Your task to perform on an android device: Open Chrome and go to settings Image 0: 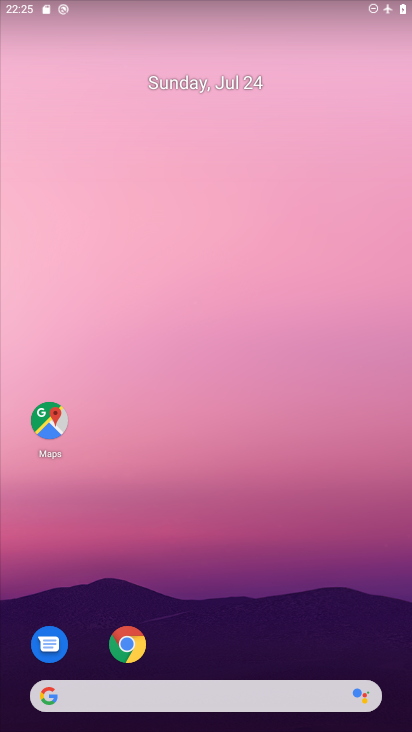
Step 0: click (128, 647)
Your task to perform on an android device: Open Chrome and go to settings Image 1: 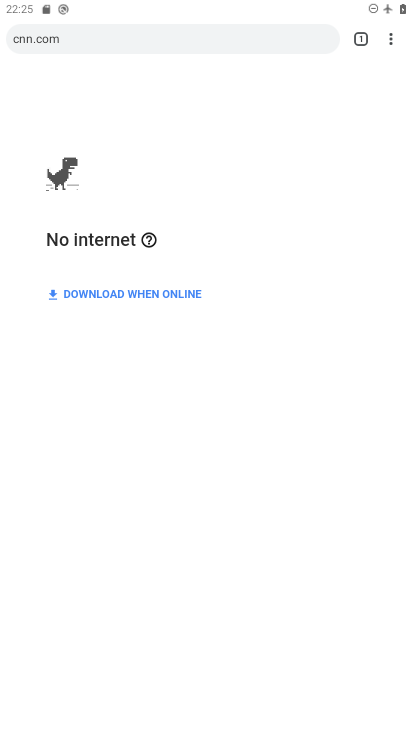
Step 1: click (392, 44)
Your task to perform on an android device: Open Chrome and go to settings Image 2: 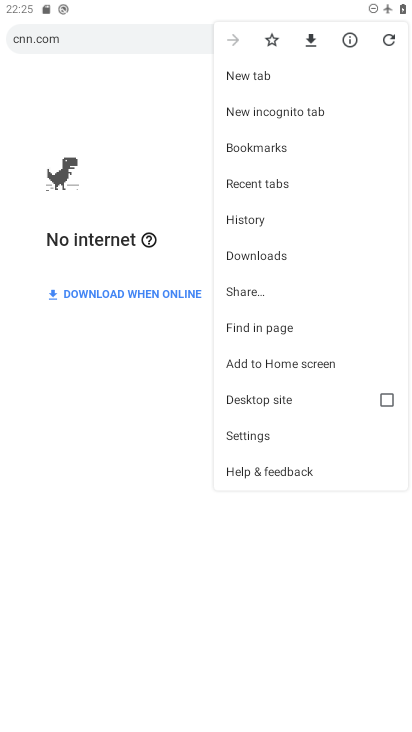
Step 2: click (244, 435)
Your task to perform on an android device: Open Chrome and go to settings Image 3: 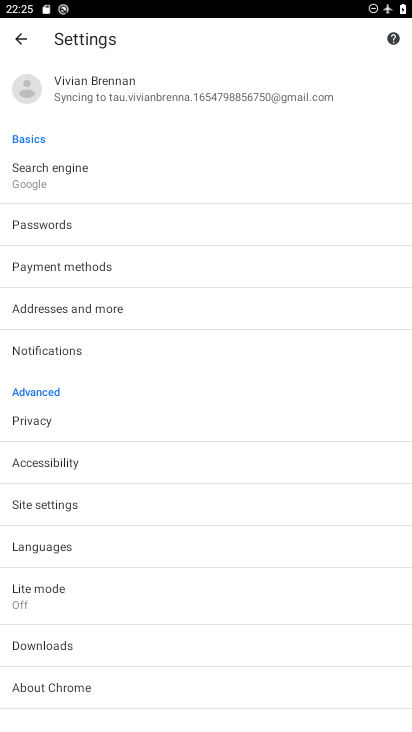
Step 3: task complete